Your task to perform on an android device: Open Google Chrome and open the bookmarks view Image 0: 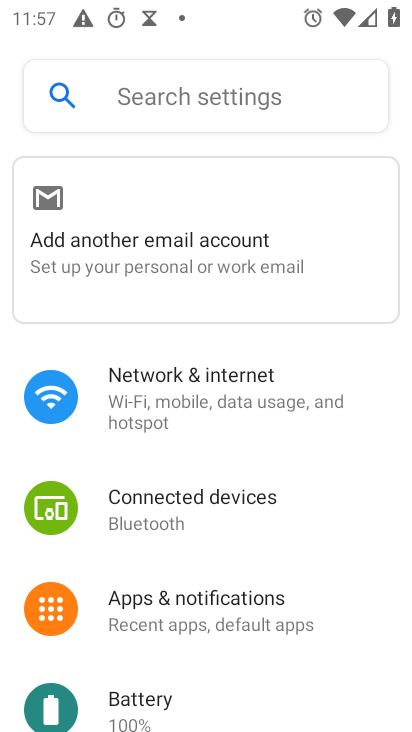
Step 0: press home button
Your task to perform on an android device: Open Google Chrome and open the bookmarks view Image 1: 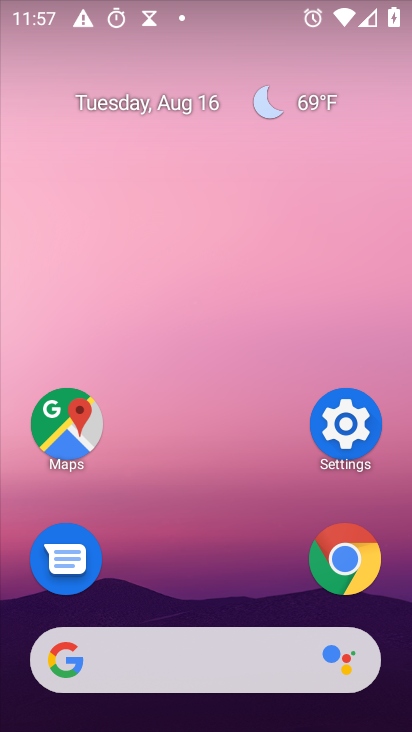
Step 1: click (362, 563)
Your task to perform on an android device: Open Google Chrome and open the bookmarks view Image 2: 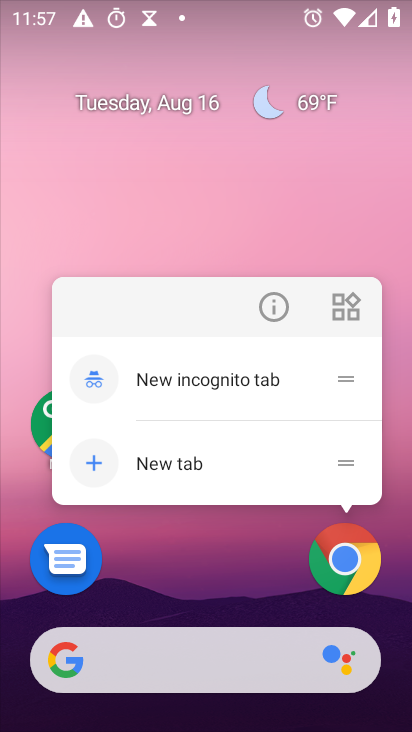
Step 2: click (350, 559)
Your task to perform on an android device: Open Google Chrome and open the bookmarks view Image 3: 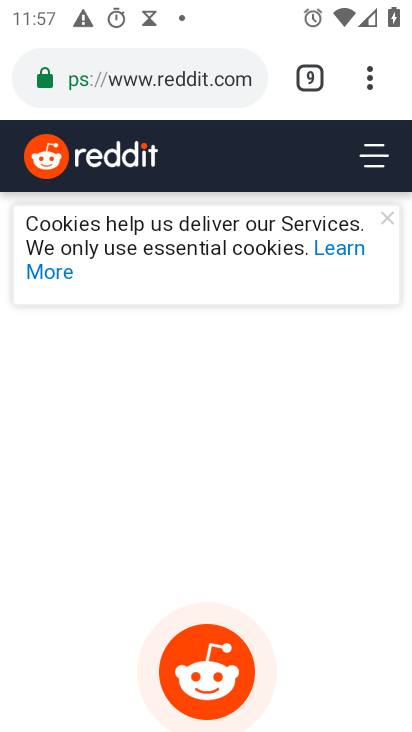
Step 3: task complete